Your task to perform on an android device: toggle pop-ups in chrome Image 0: 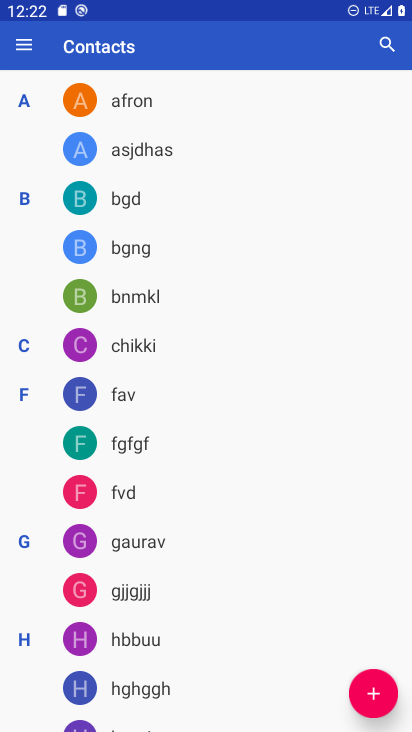
Step 0: press home button
Your task to perform on an android device: toggle pop-ups in chrome Image 1: 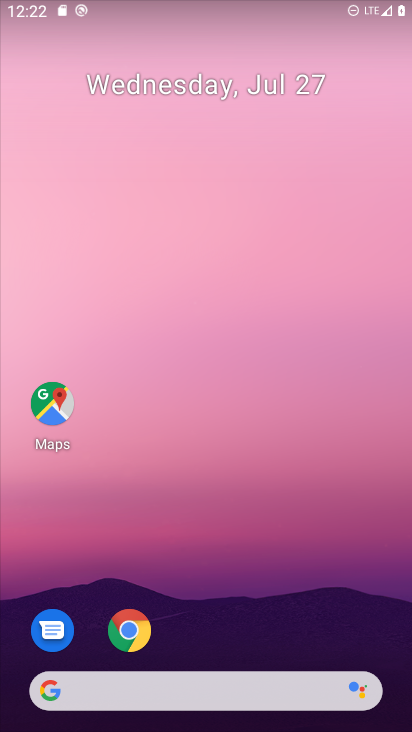
Step 1: click (129, 630)
Your task to perform on an android device: toggle pop-ups in chrome Image 2: 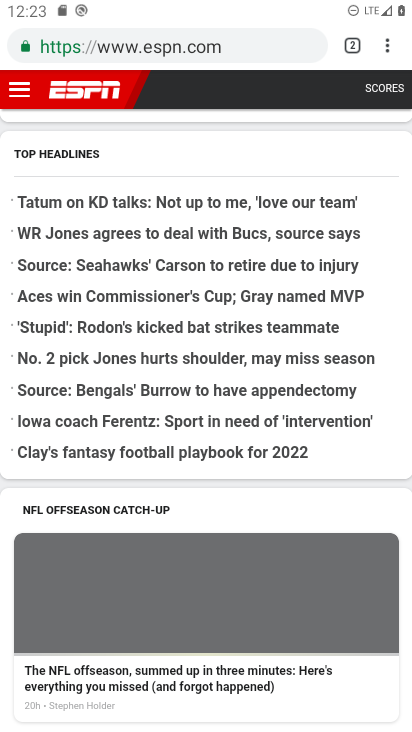
Step 2: click (390, 52)
Your task to perform on an android device: toggle pop-ups in chrome Image 3: 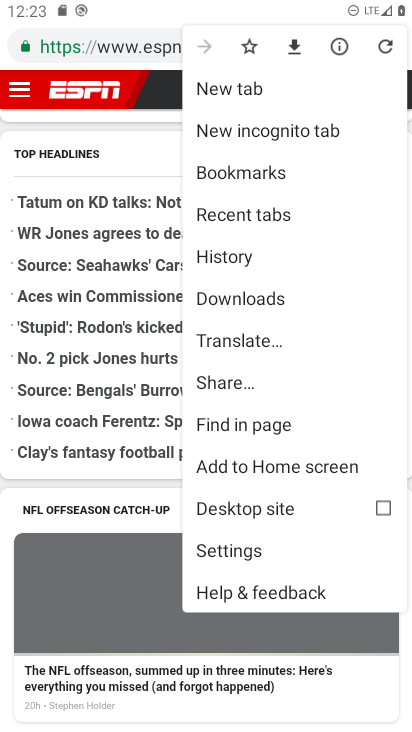
Step 3: click (240, 551)
Your task to perform on an android device: toggle pop-ups in chrome Image 4: 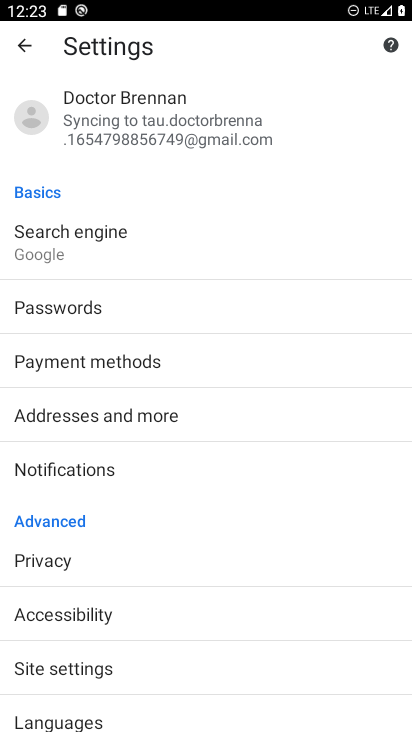
Step 4: drag from (191, 648) to (213, 356)
Your task to perform on an android device: toggle pop-ups in chrome Image 5: 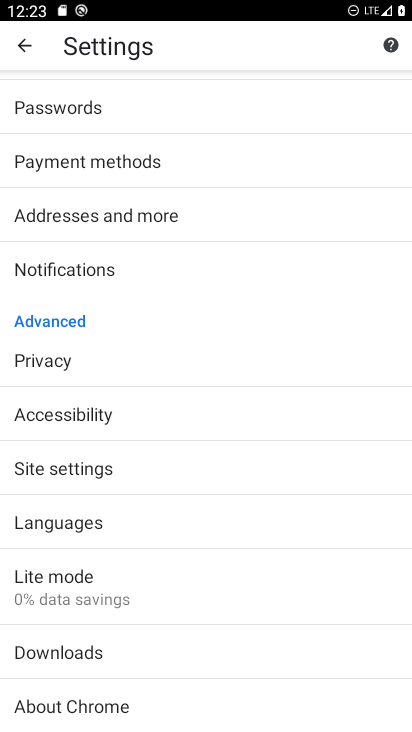
Step 5: click (53, 476)
Your task to perform on an android device: toggle pop-ups in chrome Image 6: 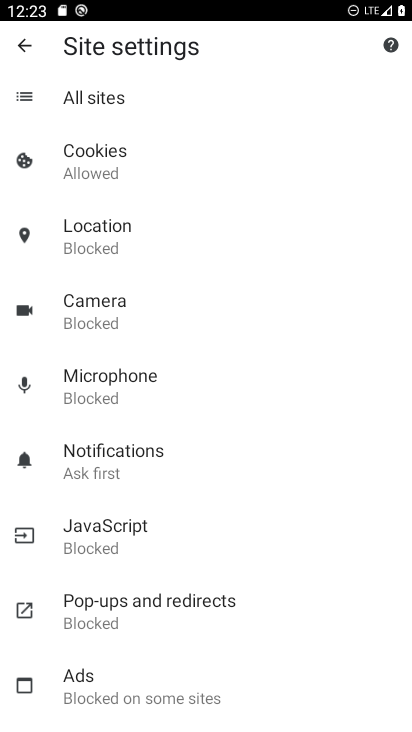
Step 6: click (110, 606)
Your task to perform on an android device: toggle pop-ups in chrome Image 7: 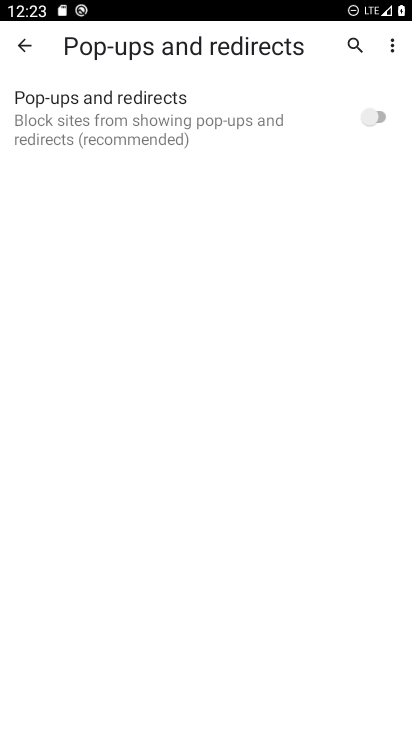
Step 7: click (380, 112)
Your task to perform on an android device: toggle pop-ups in chrome Image 8: 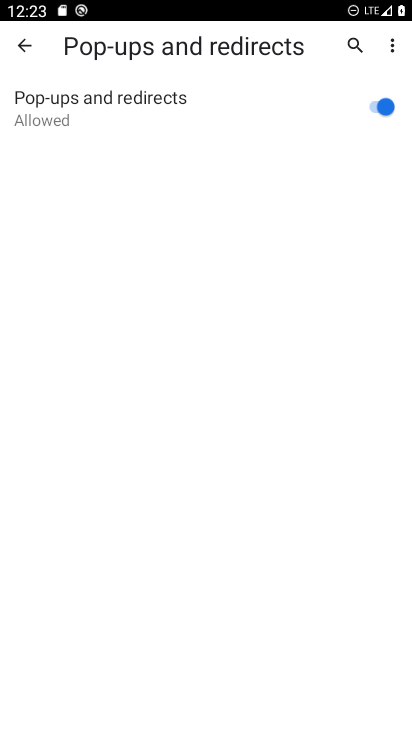
Step 8: task complete